Your task to perform on an android device: stop showing notifications on the lock screen Image 0: 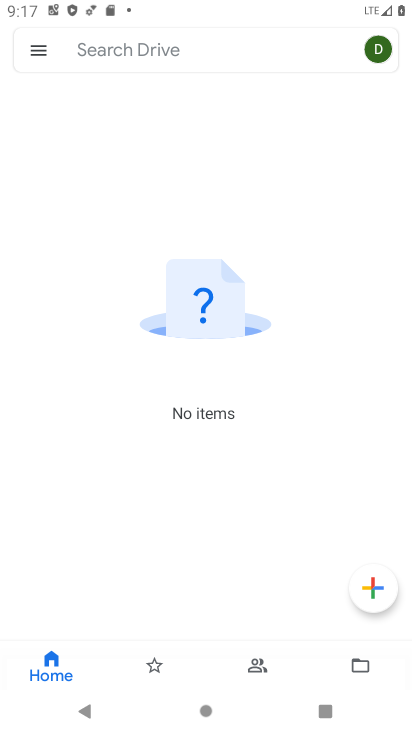
Step 0: press home button
Your task to perform on an android device: stop showing notifications on the lock screen Image 1: 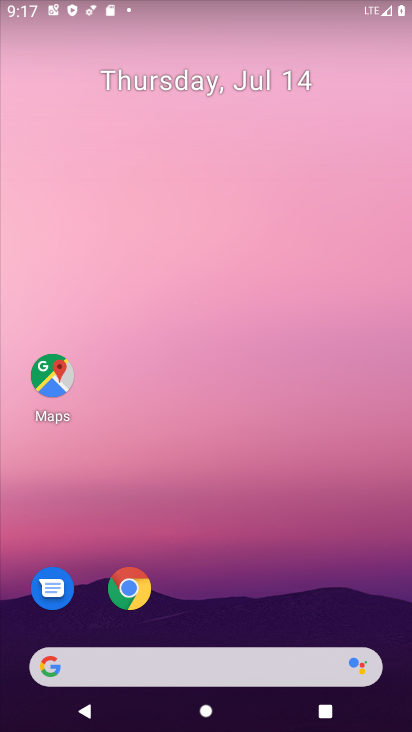
Step 1: drag from (393, 664) to (276, 69)
Your task to perform on an android device: stop showing notifications on the lock screen Image 2: 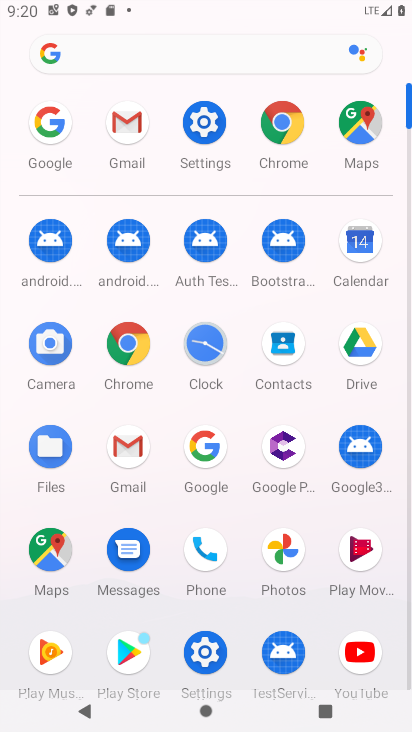
Step 2: click (218, 644)
Your task to perform on an android device: stop showing notifications on the lock screen Image 3: 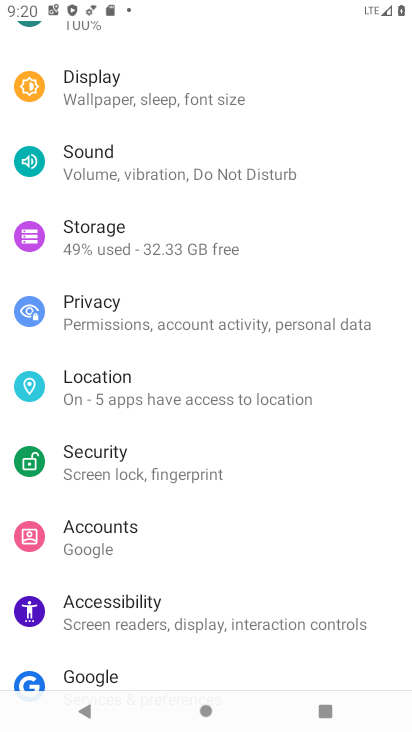
Step 3: drag from (137, 122) to (147, 587)
Your task to perform on an android device: stop showing notifications on the lock screen Image 4: 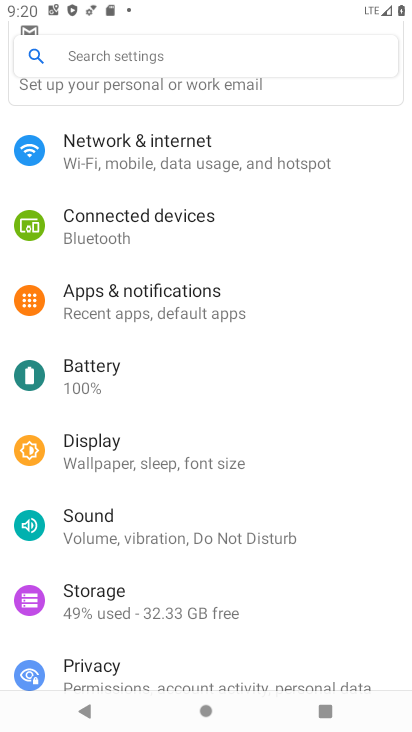
Step 4: click (160, 306)
Your task to perform on an android device: stop showing notifications on the lock screen Image 5: 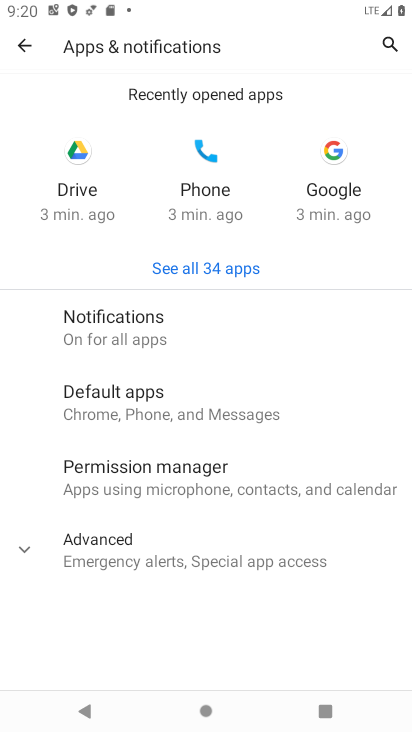
Step 5: click (125, 322)
Your task to perform on an android device: stop showing notifications on the lock screen Image 6: 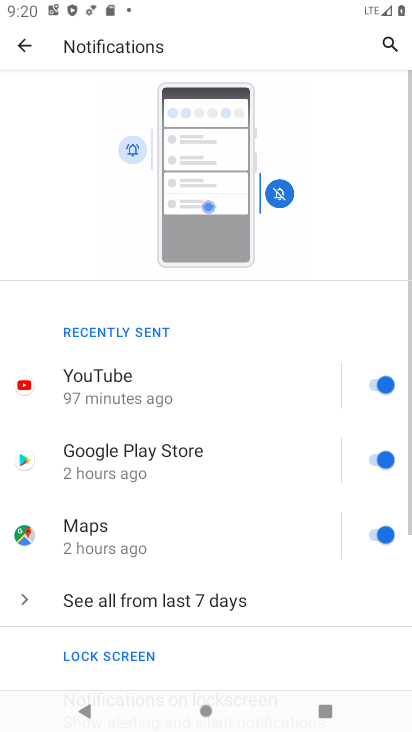
Step 6: drag from (149, 662) to (168, 47)
Your task to perform on an android device: stop showing notifications on the lock screen Image 7: 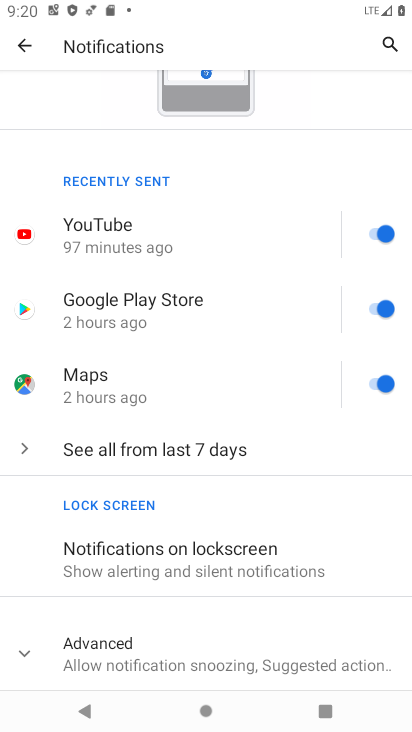
Step 7: click (178, 553)
Your task to perform on an android device: stop showing notifications on the lock screen Image 8: 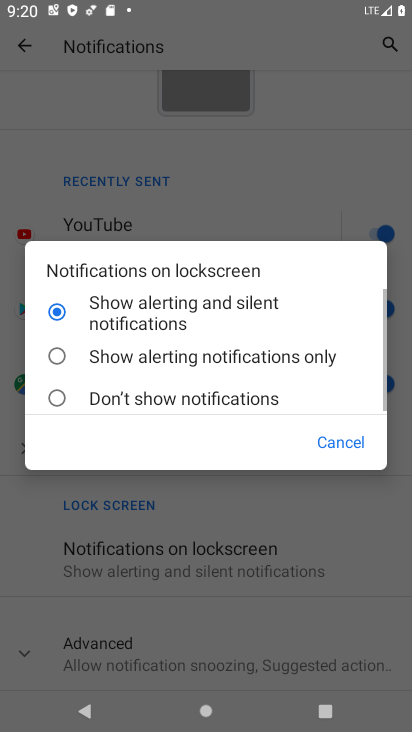
Step 8: click (76, 404)
Your task to perform on an android device: stop showing notifications on the lock screen Image 9: 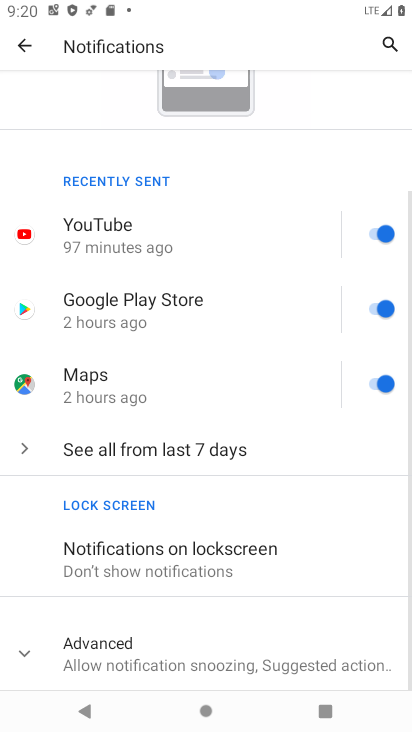
Step 9: task complete